Your task to perform on an android device: Show me popular videos on Youtube Image 0: 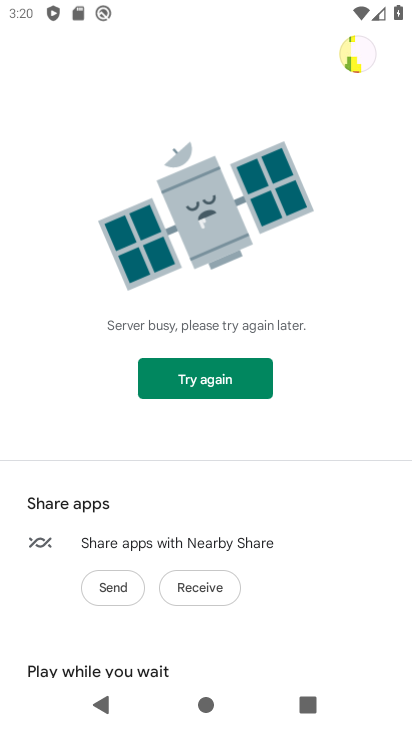
Step 0: press home button
Your task to perform on an android device: Show me popular videos on Youtube Image 1: 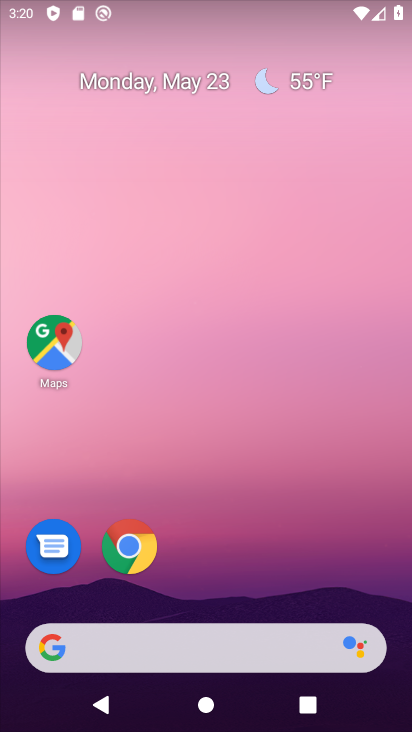
Step 1: drag from (316, 473) to (343, 333)
Your task to perform on an android device: Show me popular videos on Youtube Image 2: 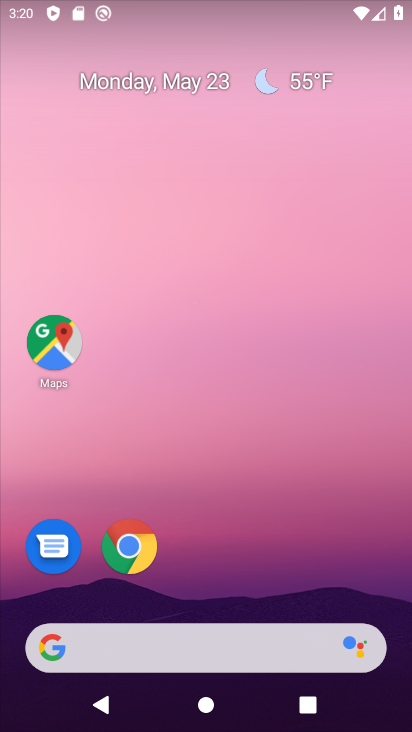
Step 2: drag from (341, 96) to (277, 4)
Your task to perform on an android device: Show me popular videos on Youtube Image 3: 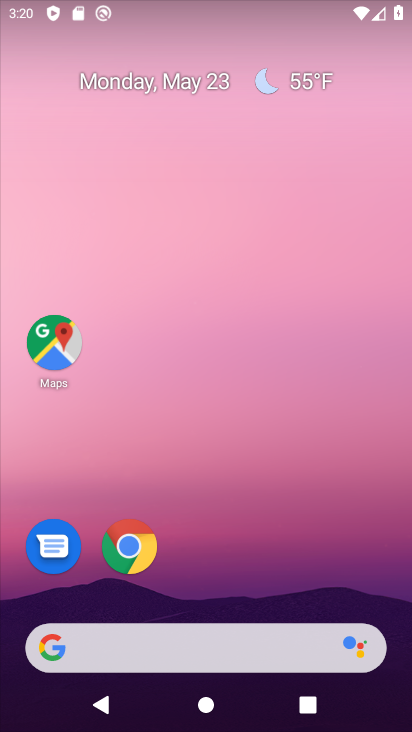
Step 3: drag from (268, 605) to (218, 89)
Your task to perform on an android device: Show me popular videos on Youtube Image 4: 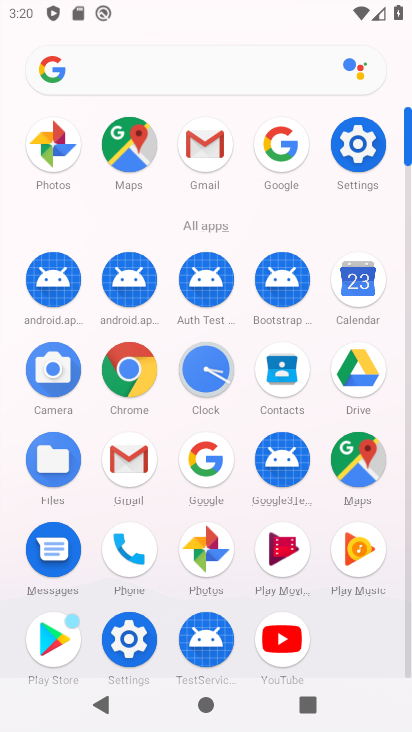
Step 4: click (266, 649)
Your task to perform on an android device: Show me popular videos on Youtube Image 5: 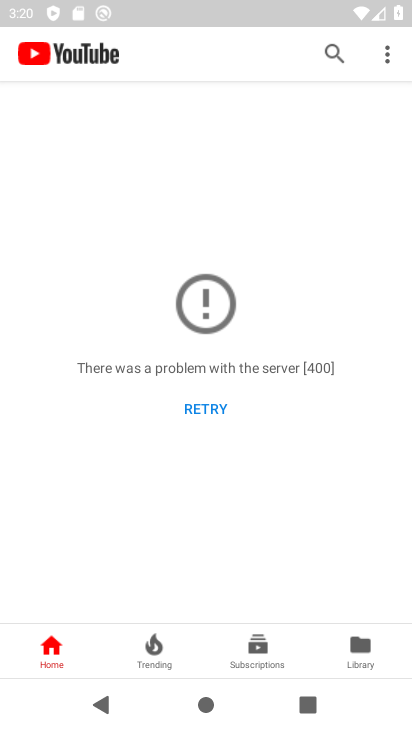
Step 5: task complete